Your task to perform on an android device: clear history in the chrome app Image 0: 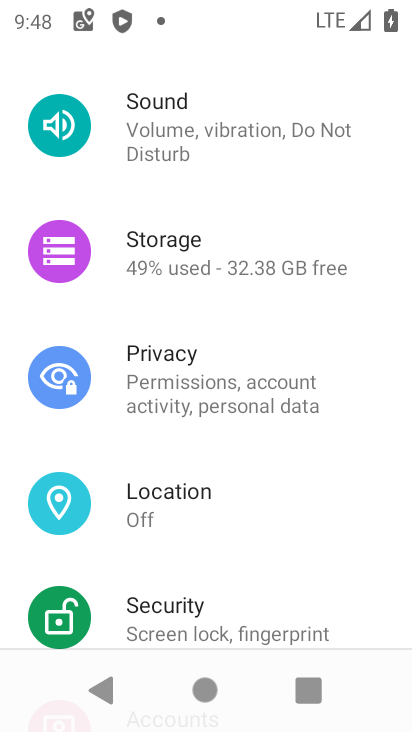
Step 0: press home button
Your task to perform on an android device: clear history in the chrome app Image 1: 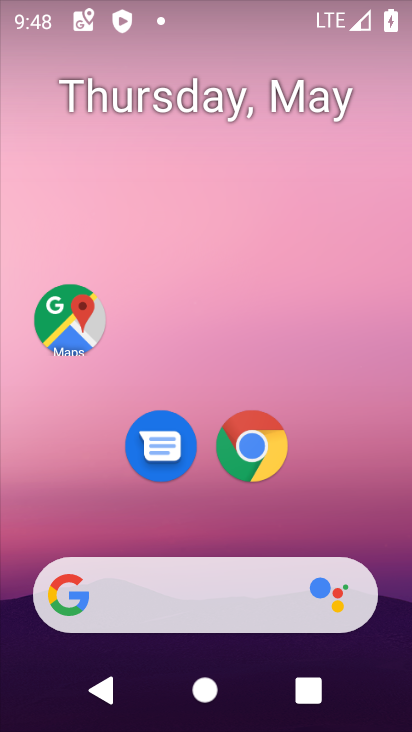
Step 1: click (250, 444)
Your task to perform on an android device: clear history in the chrome app Image 2: 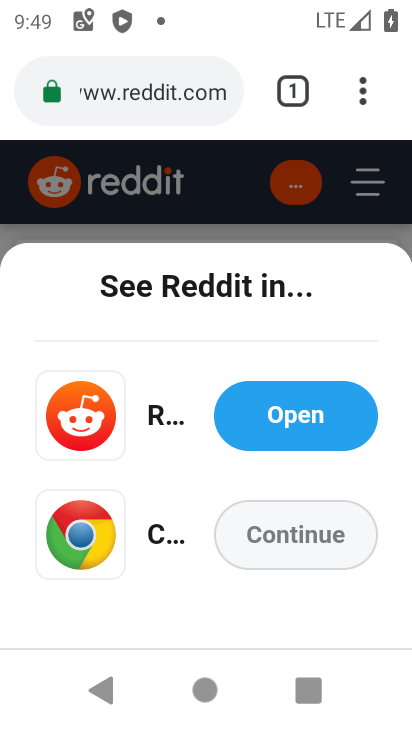
Step 2: click (359, 94)
Your task to perform on an android device: clear history in the chrome app Image 3: 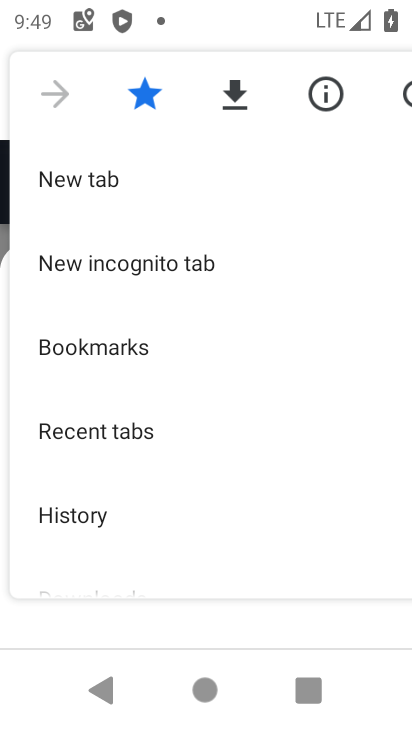
Step 3: click (90, 512)
Your task to perform on an android device: clear history in the chrome app Image 4: 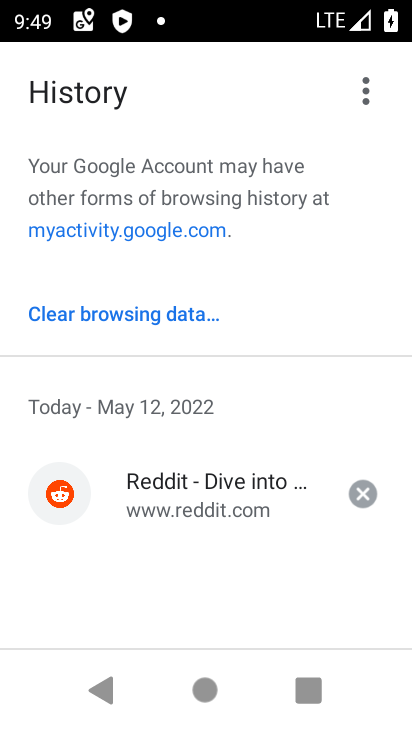
Step 4: click (117, 307)
Your task to perform on an android device: clear history in the chrome app Image 5: 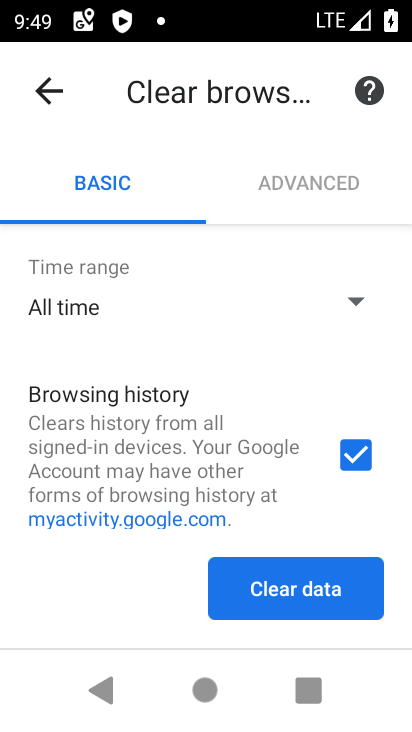
Step 5: drag from (285, 480) to (278, 209)
Your task to perform on an android device: clear history in the chrome app Image 6: 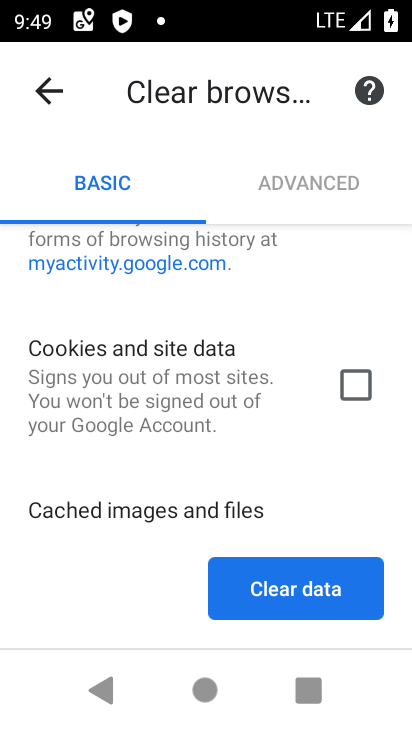
Step 6: drag from (249, 475) to (258, 168)
Your task to perform on an android device: clear history in the chrome app Image 7: 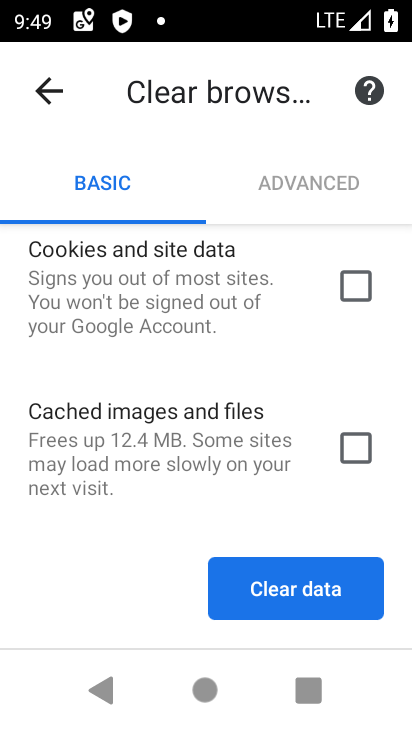
Step 7: click (300, 594)
Your task to perform on an android device: clear history in the chrome app Image 8: 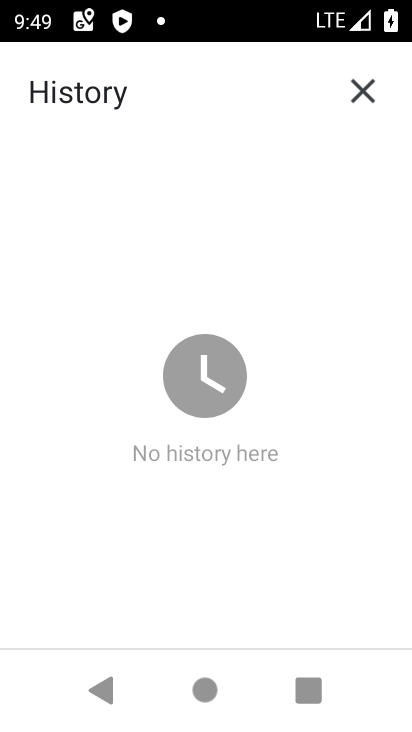
Step 8: task complete